Your task to perform on an android device: change the clock display to analog Image 0: 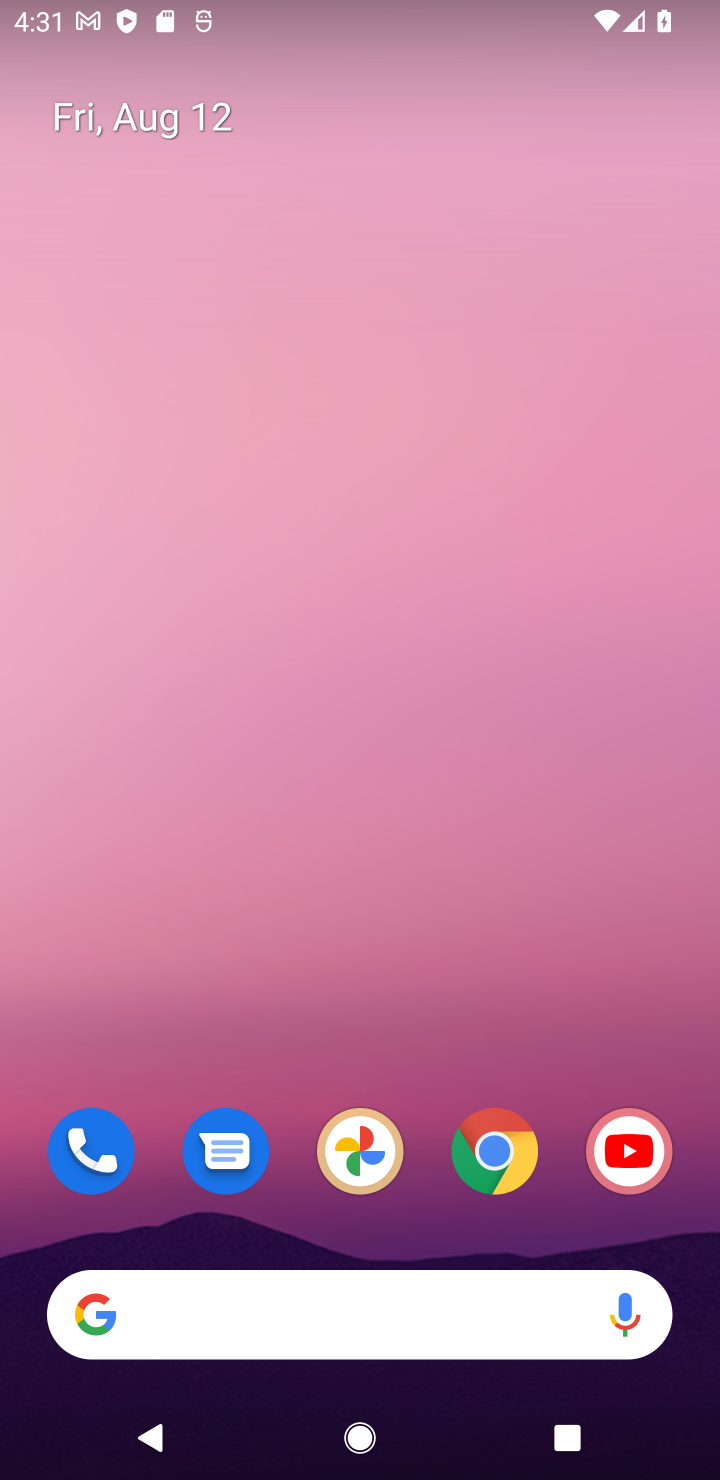
Step 0: drag from (434, 1046) to (554, 5)
Your task to perform on an android device: change the clock display to analog Image 1: 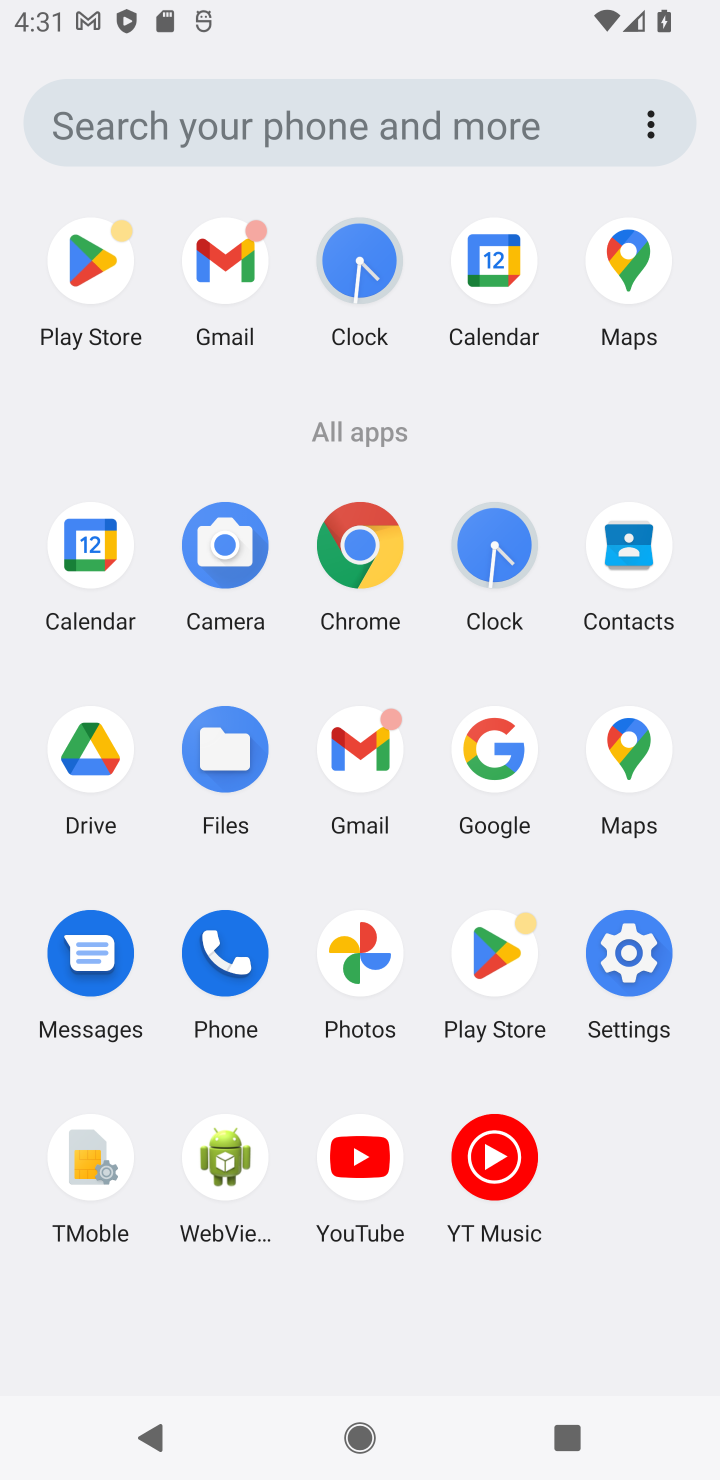
Step 1: click (500, 540)
Your task to perform on an android device: change the clock display to analog Image 2: 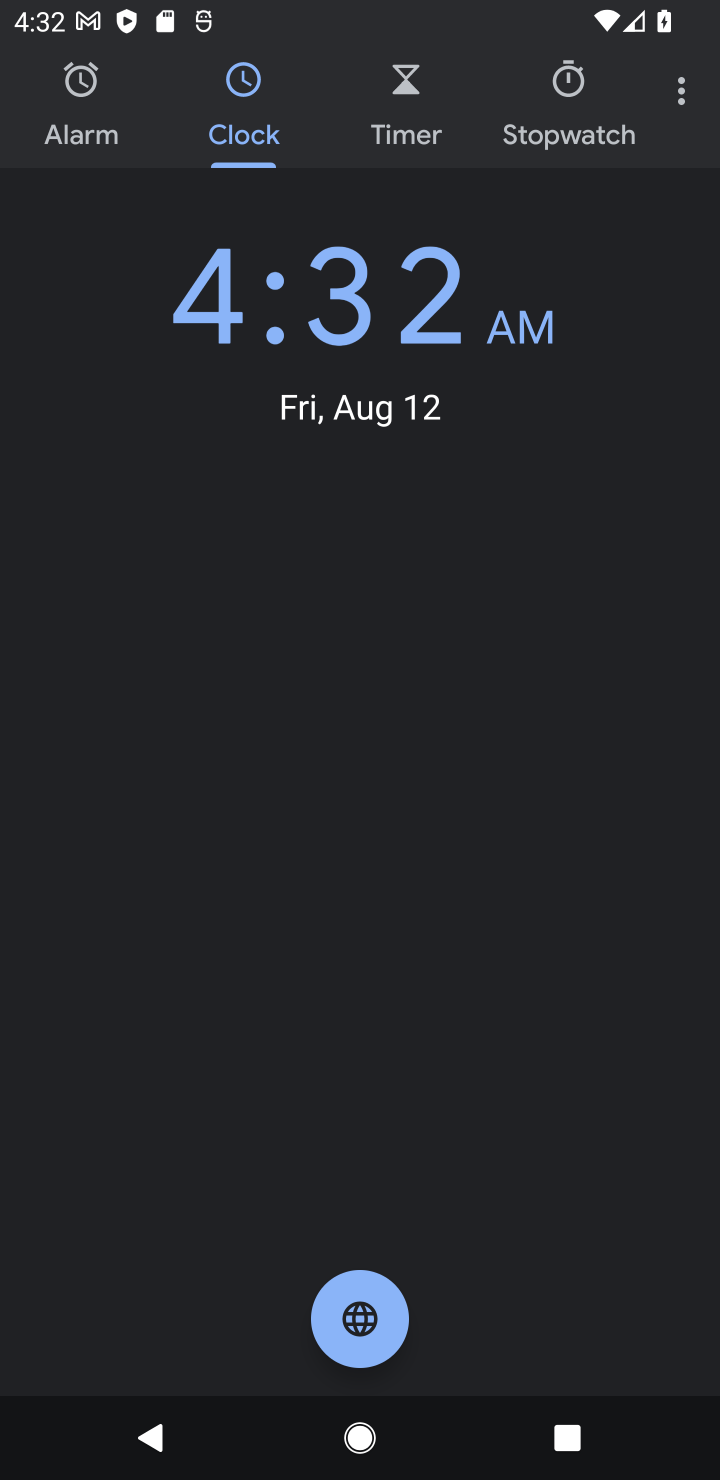
Step 2: click (685, 83)
Your task to perform on an android device: change the clock display to analog Image 3: 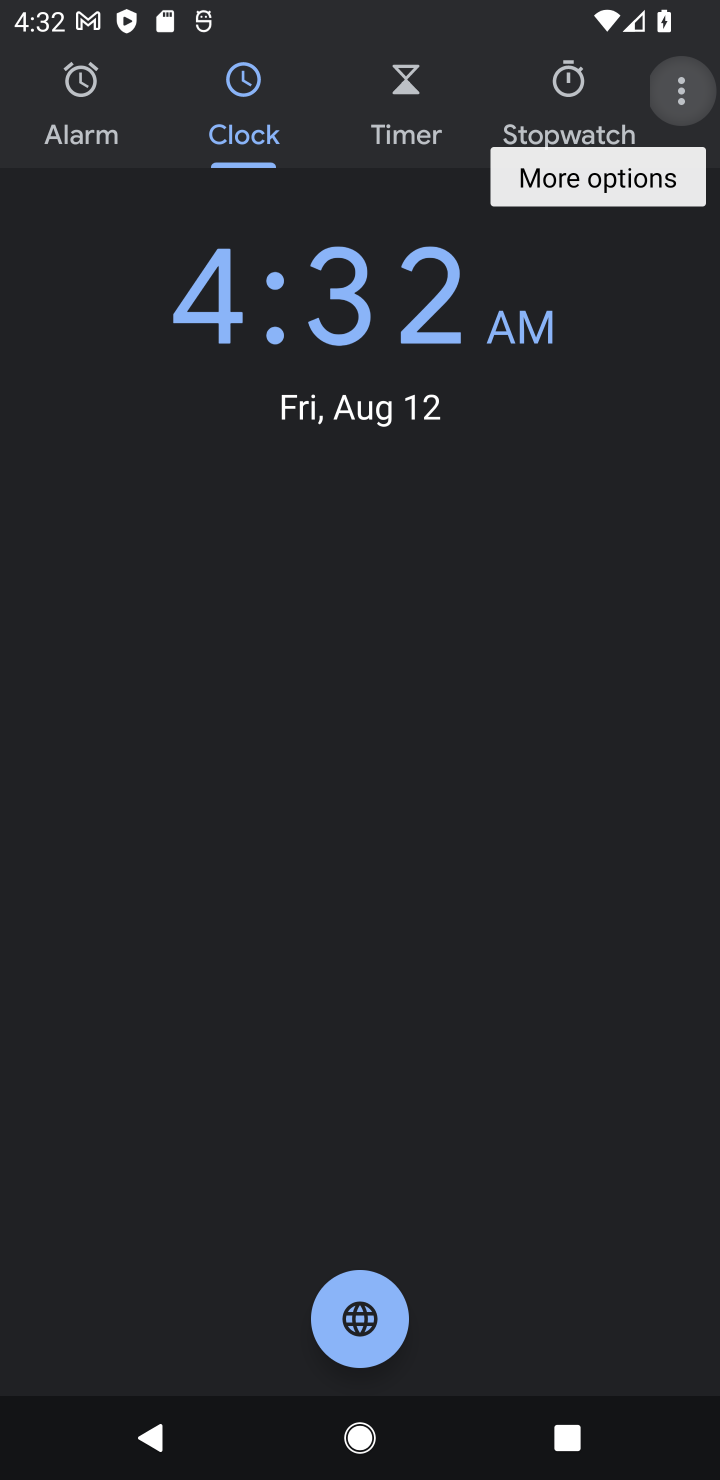
Step 3: click (690, 86)
Your task to perform on an android device: change the clock display to analog Image 4: 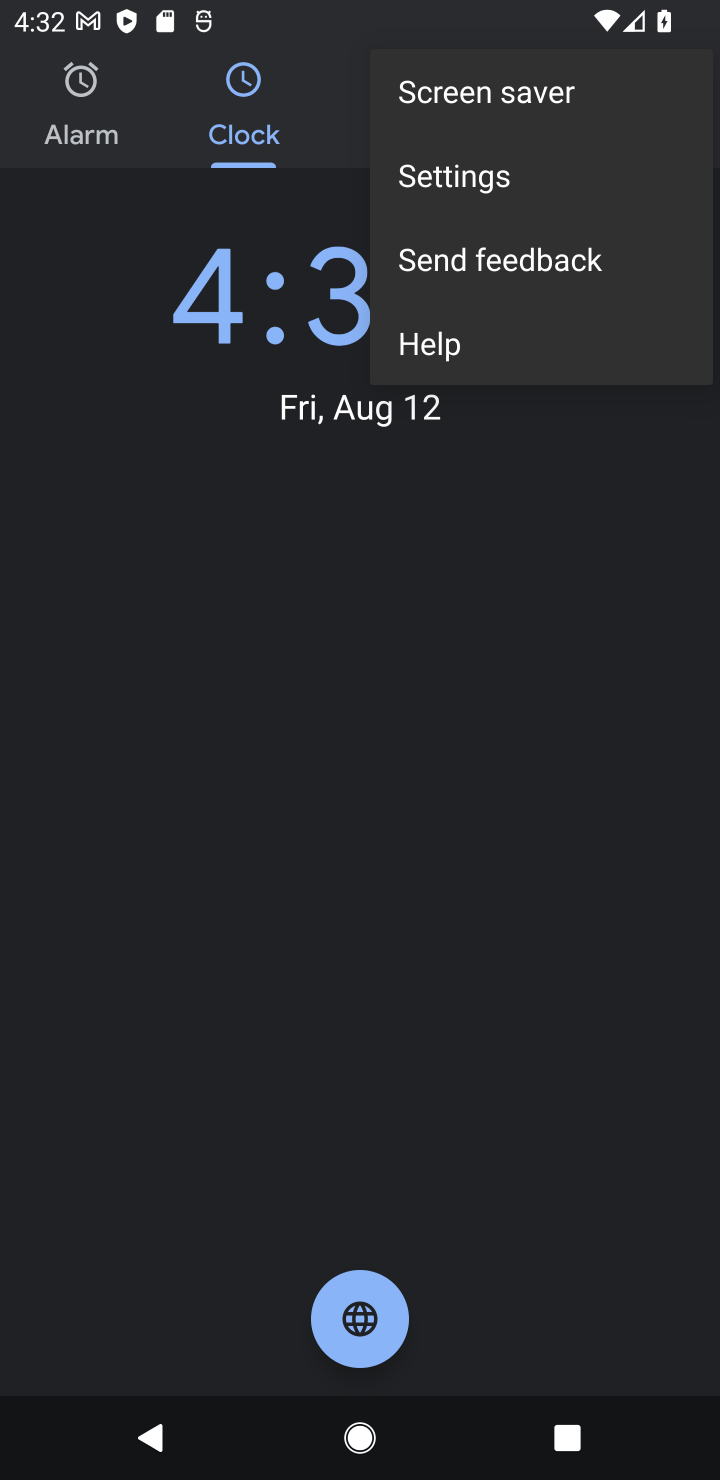
Step 4: click (519, 200)
Your task to perform on an android device: change the clock display to analog Image 5: 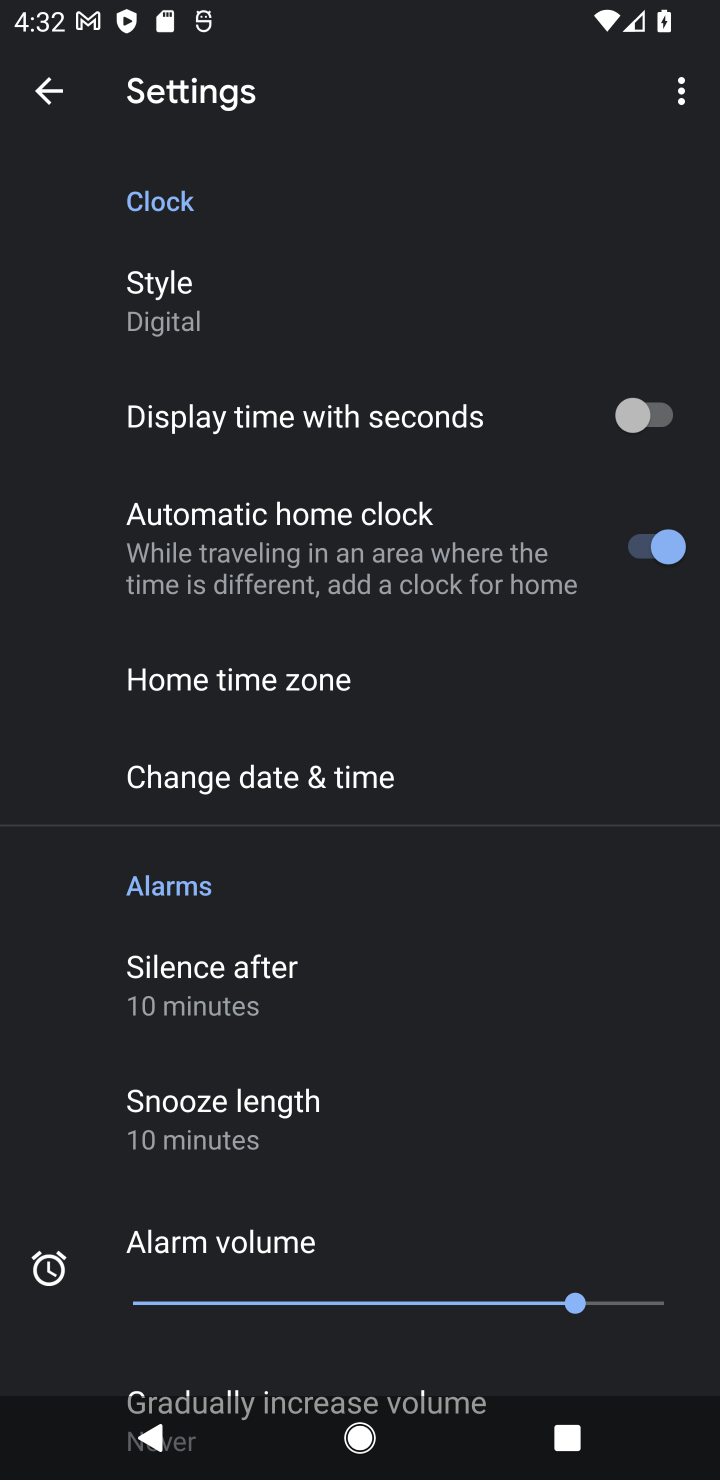
Step 5: click (197, 313)
Your task to perform on an android device: change the clock display to analog Image 6: 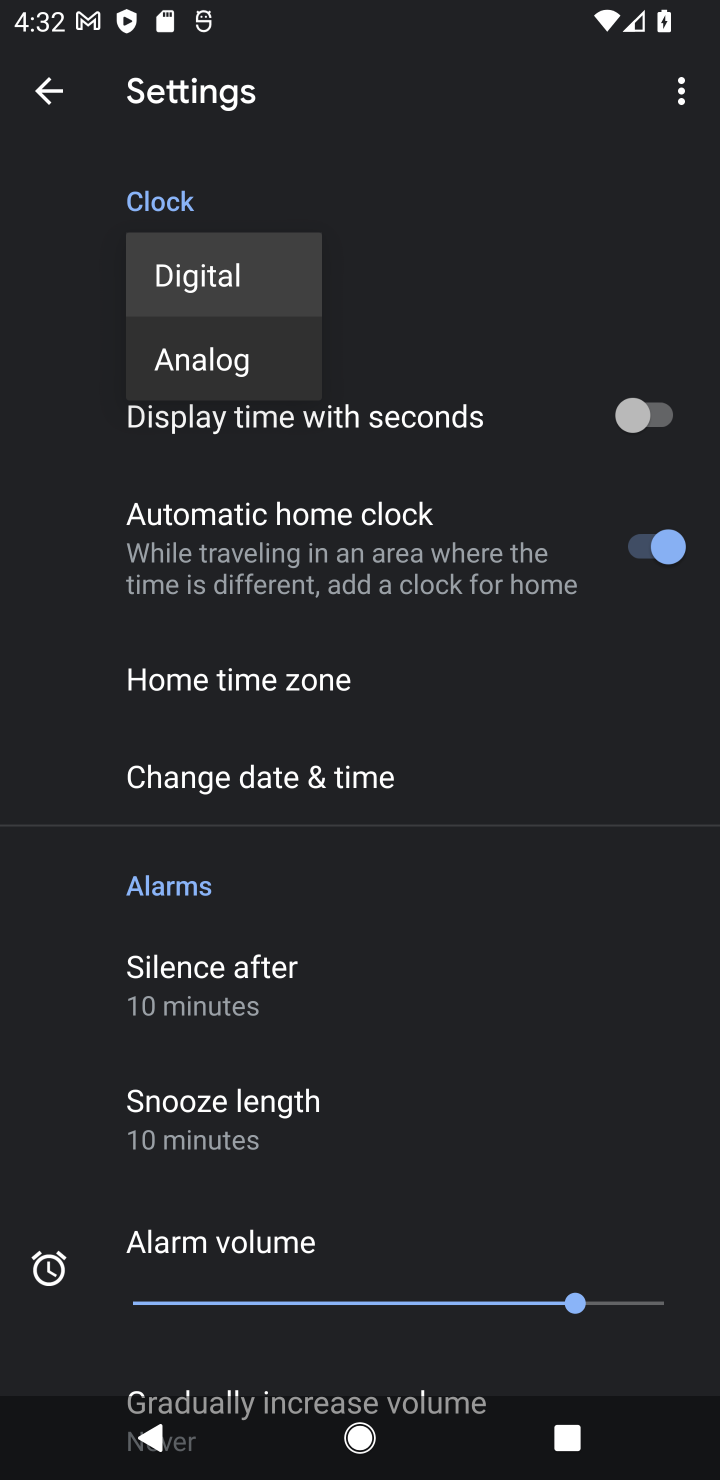
Step 6: click (214, 378)
Your task to perform on an android device: change the clock display to analog Image 7: 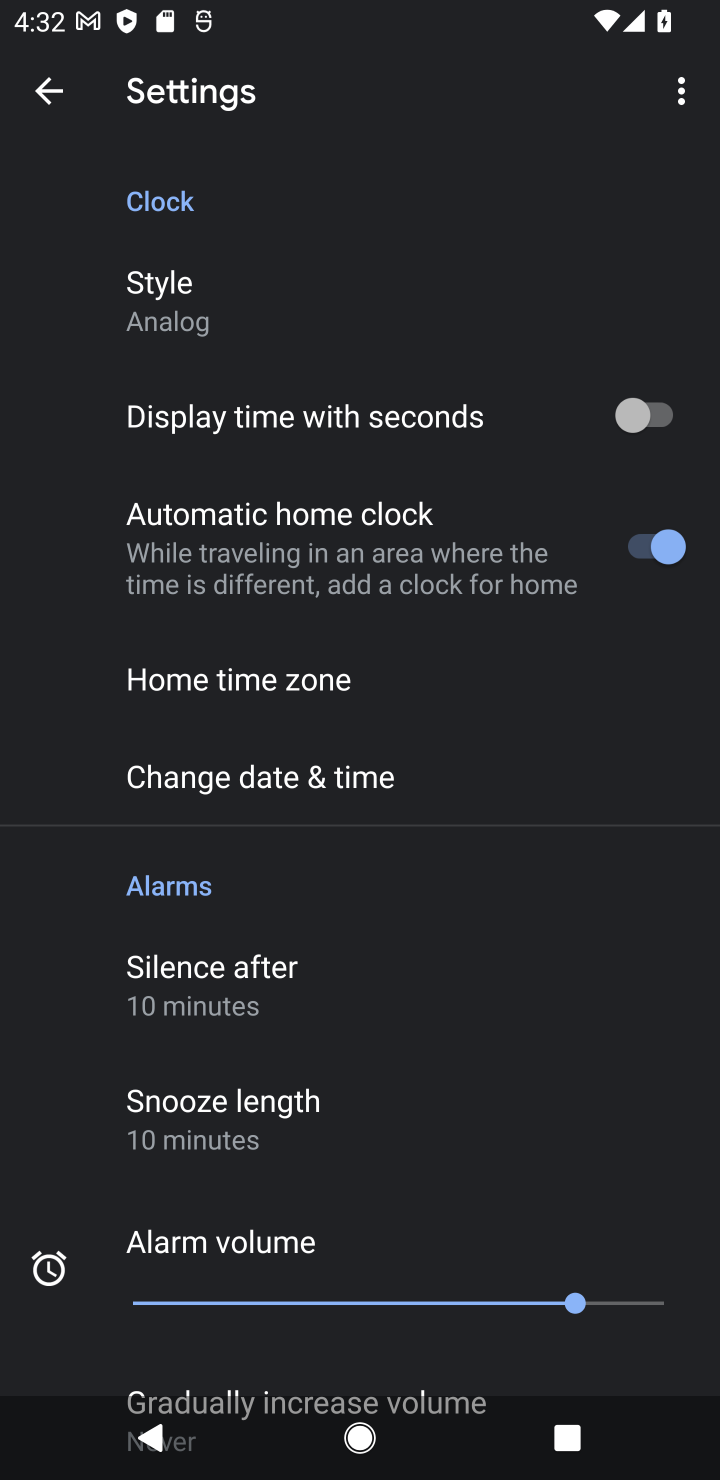
Step 7: task complete